Your task to perform on an android device: check battery use Image 0: 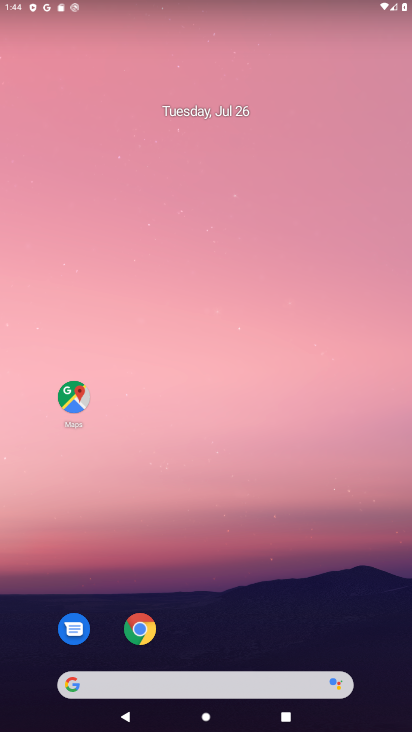
Step 0: drag from (293, 590) to (243, 151)
Your task to perform on an android device: check battery use Image 1: 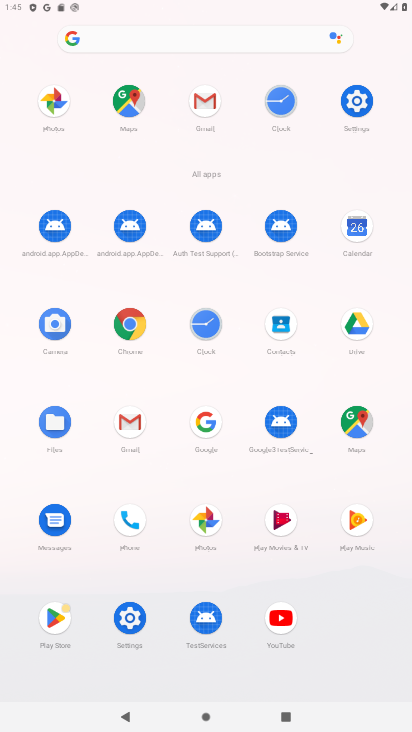
Step 1: click (137, 618)
Your task to perform on an android device: check battery use Image 2: 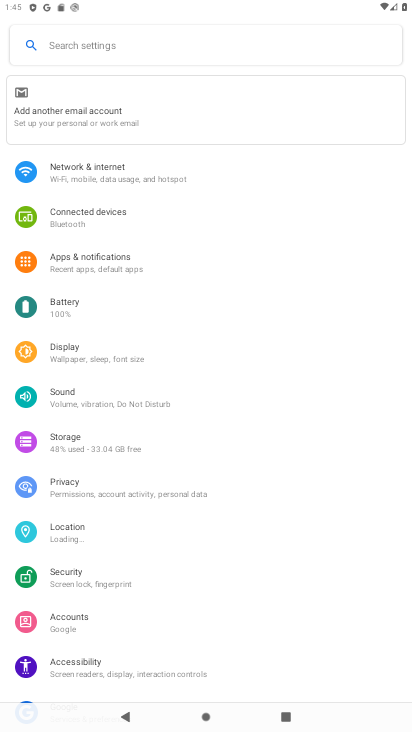
Step 2: click (51, 315)
Your task to perform on an android device: check battery use Image 3: 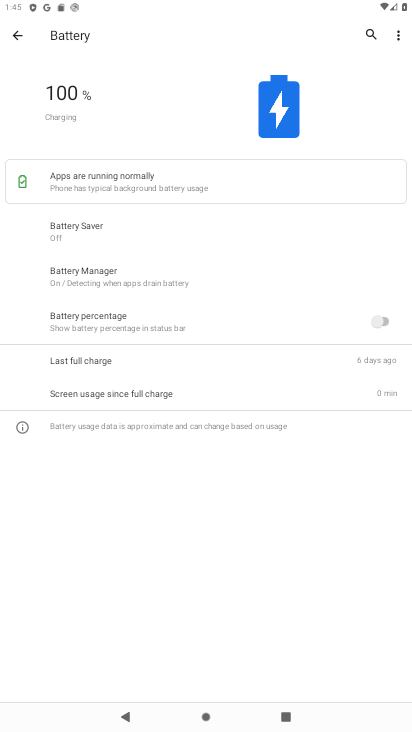
Step 3: click (402, 33)
Your task to perform on an android device: check battery use Image 4: 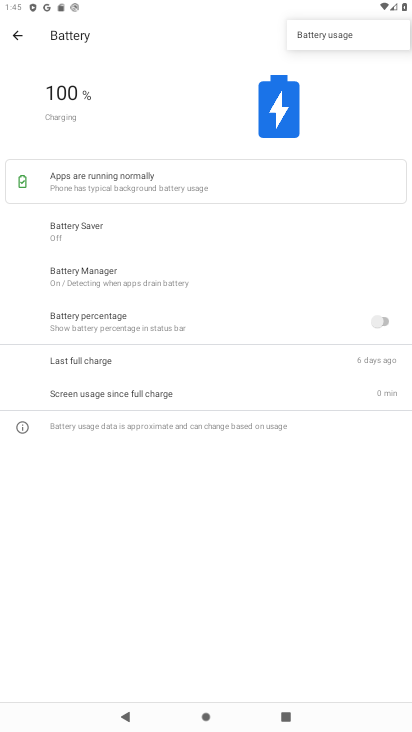
Step 4: click (366, 35)
Your task to perform on an android device: check battery use Image 5: 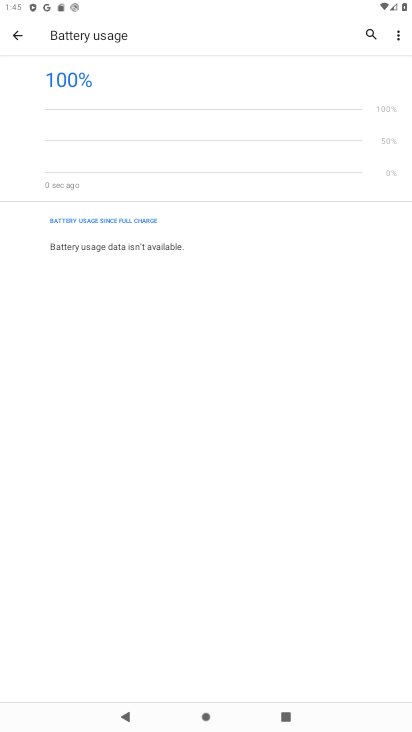
Step 5: task complete